Your task to perform on an android device: Set the phone to "Do not disturb". Image 0: 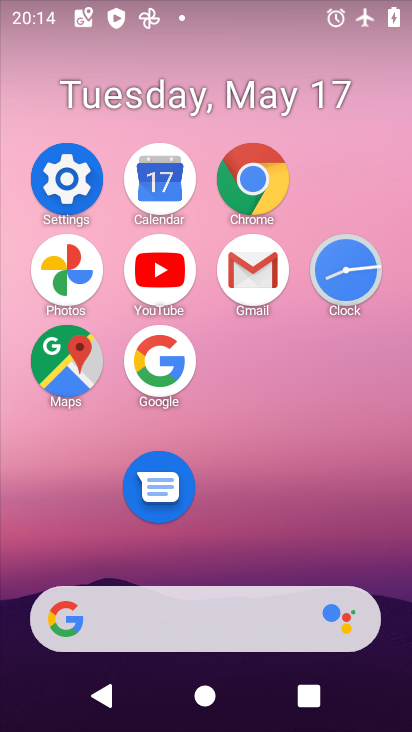
Step 0: click (77, 201)
Your task to perform on an android device: Set the phone to "Do not disturb". Image 1: 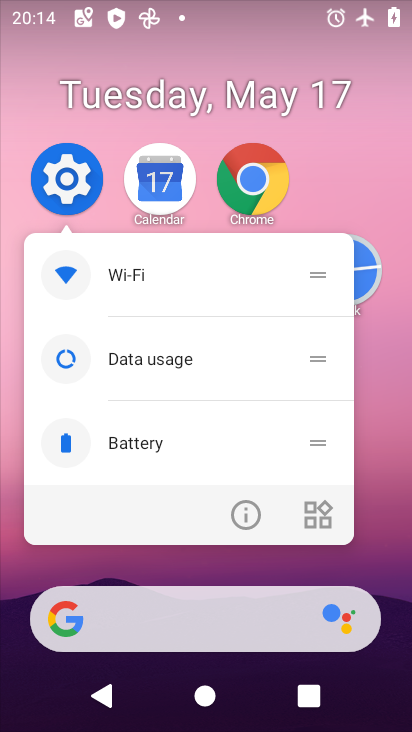
Step 1: click (68, 179)
Your task to perform on an android device: Set the phone to "Do not disturb". Image 2: 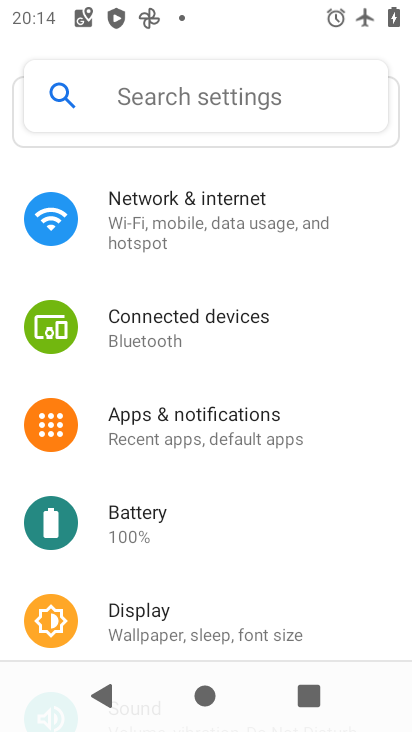
Step 2: drag from (280, 508) to (273, 149)
Your task to perform on an android device: Set the phone to "Do not disturb". Image 3: 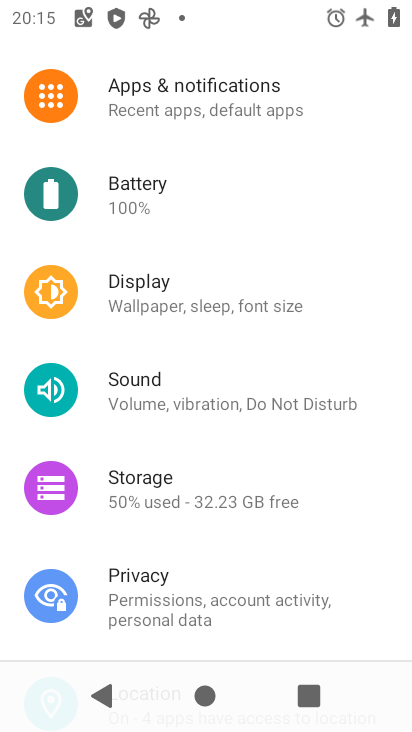
Step 3: click (307, 374)
Your task to perform on an android device: Set the phone to "Do not disturb". Image 4: 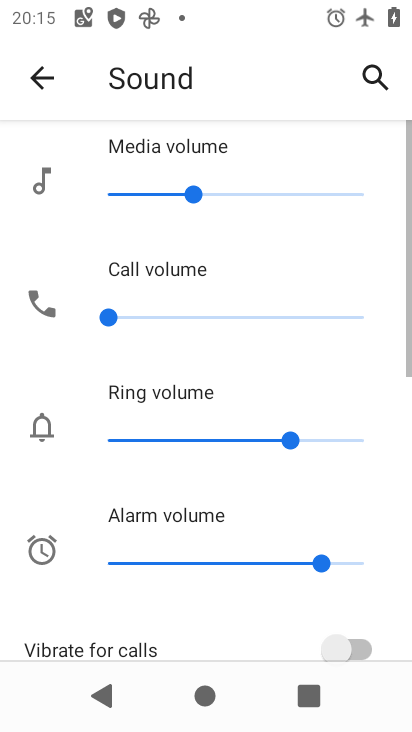
Step 4: drag from (174, 591) to (190, 34)
Your task to perform on an android device: Set the phone to "Do not disturb". Image 5: 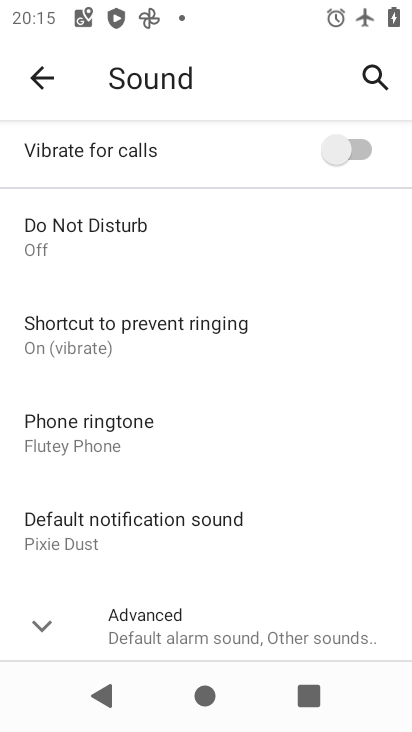
Step 5: drag from (189, 574) to (215, 239)
Your task to perform on an android device: Set the phone to "Do not disturb". Image 6: 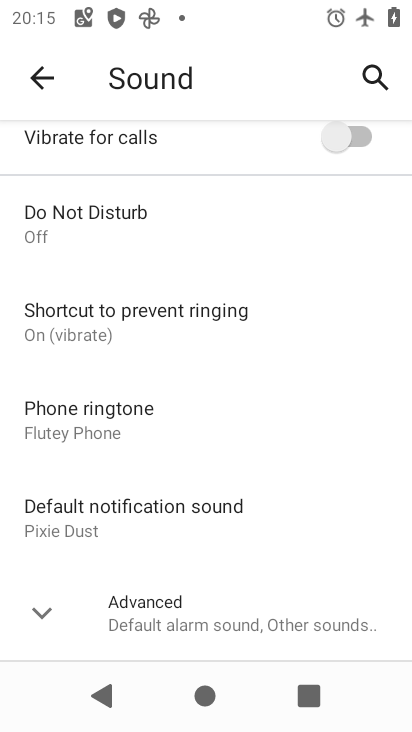
Step 6: click (162, 610)
Your task to perform on an android device: Set the phone to "Do not disturb". Image 7: 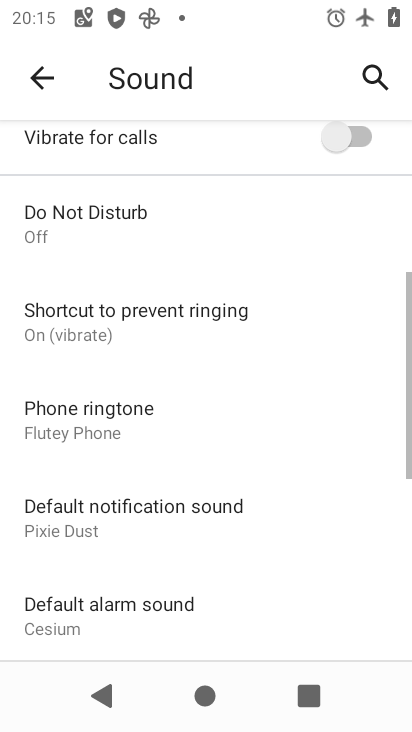
Step 7: drag from (162, 610) to (157, 133)
Your task to perform on an android device: Set the phone to "Do not disturb". Image 8: 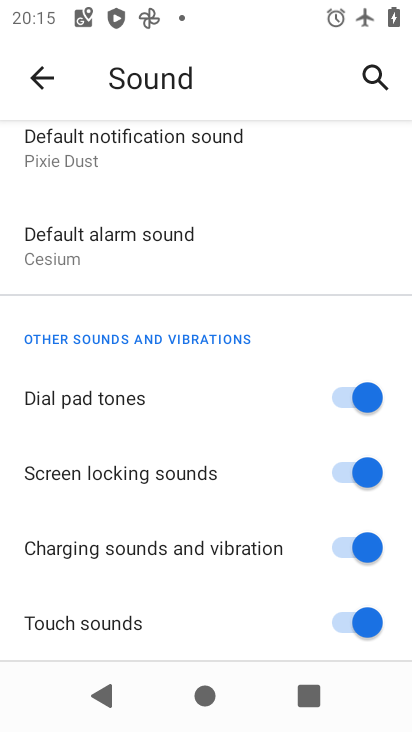
Step 8: drag from (162, 228) to (153, 628)
Your task to perform on an android device: Set the phone to "Do not disturb". Image 9: 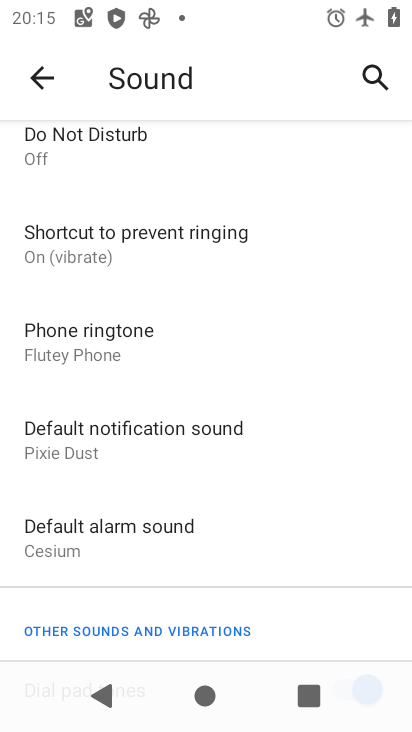
Step 9: click (96, 161)
Your task to perform on an android device: Set the phone to "Do not disturb". Image 10: 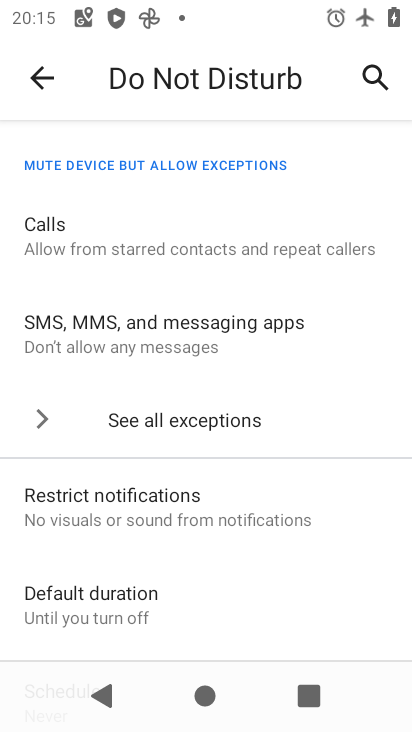
Step 10: drag from (208, 561) to (252, 101)
Your task to perform on an android device: Set the phone to "Do not disturb". Image 11: 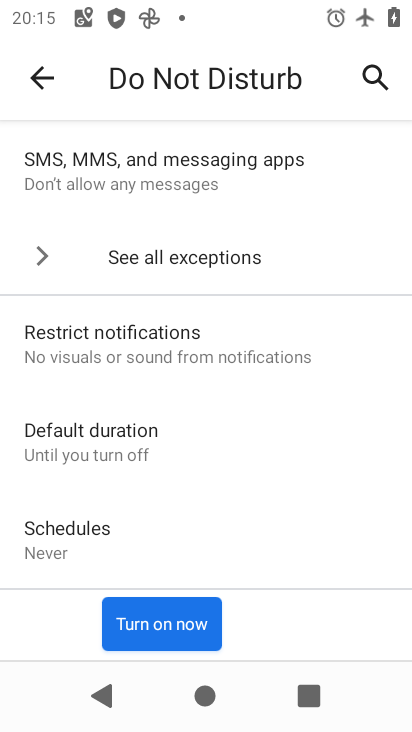
Step 11: click (191, 622)
Your task to perform on an android device: Set the phone to "Do not disturb". Image 12: 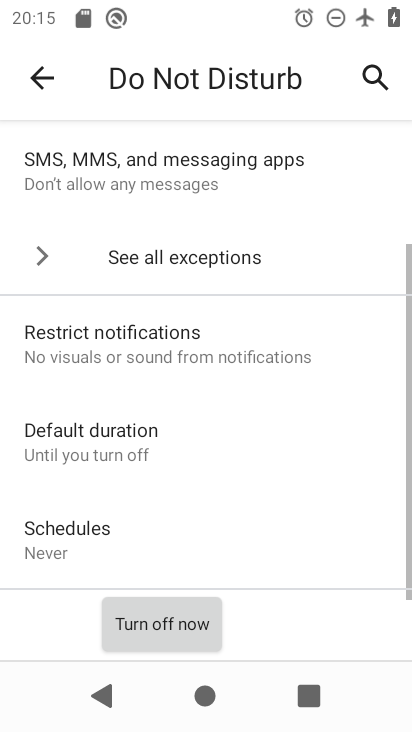
Step 12: task complete